Your task to perform on an android device: Open Reddit.com Image 0: 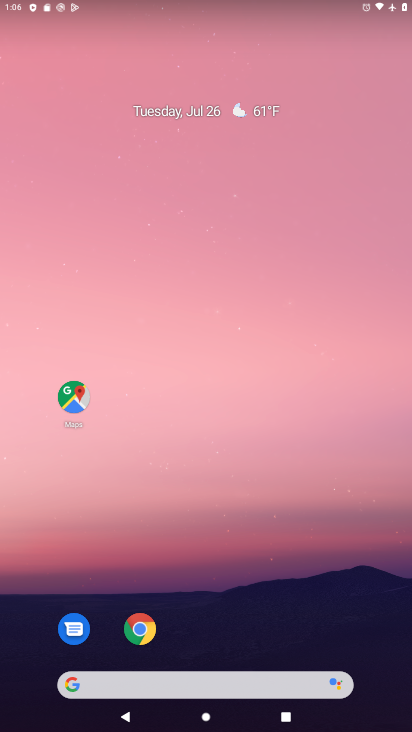
Step 0: click (126, 614)
Your task to perform on an android device: Open Reddit.com Image 1: 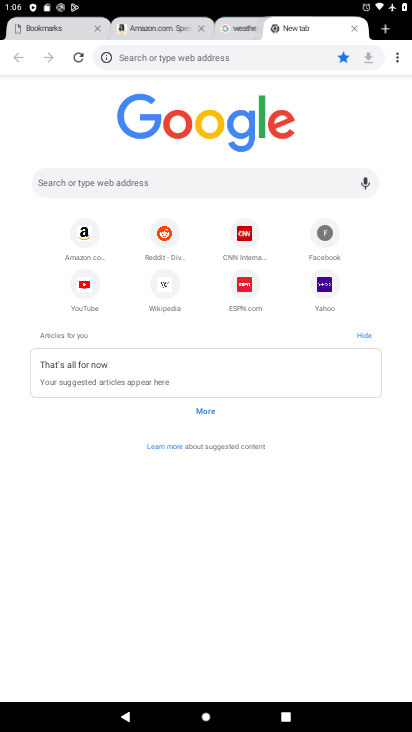
Step 1: click (165, 234)
Your task to perform on an android device: Open Reddit.com Image 2: 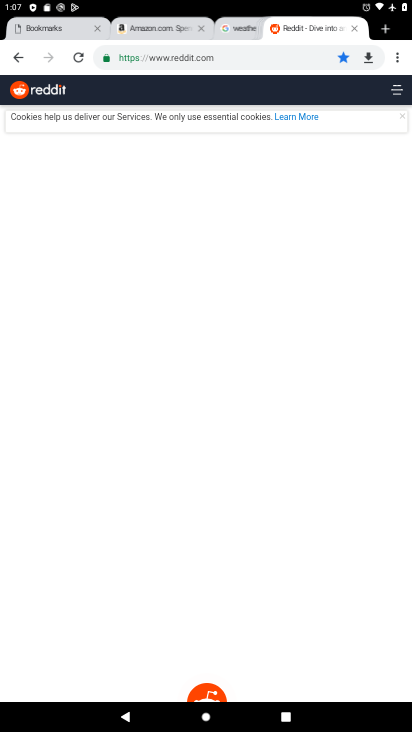
Step 2: task complete